Your task to perform on an android device: check data usage Image 0: 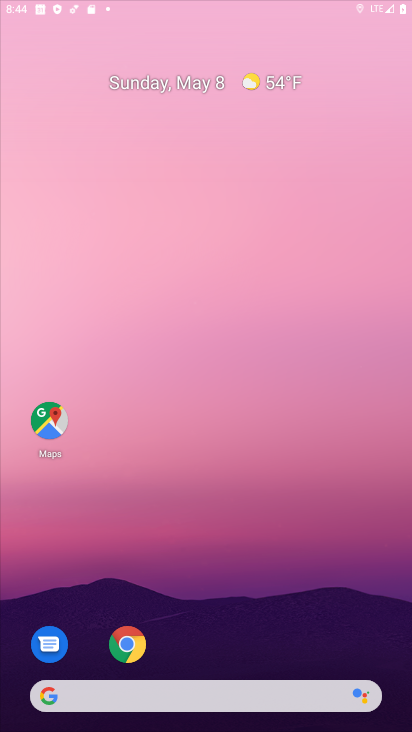
Step 0: click (262, 194)
Your task to perform on an android device: check data usage Image 1: 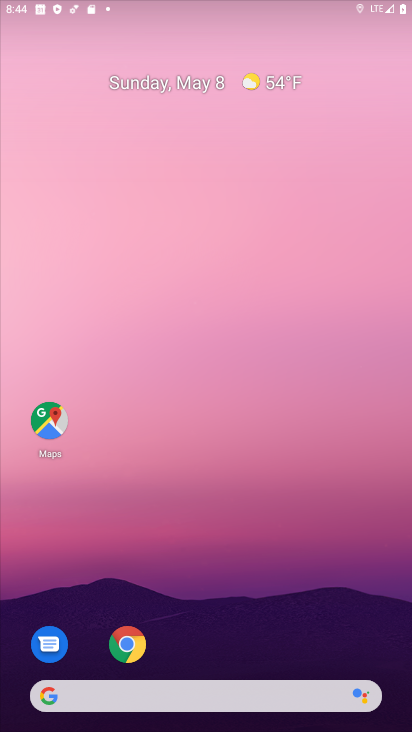
Step 1: drag from (194, 670) to (236, 161)
Your task to perform on an android device: check data usage Image 2: 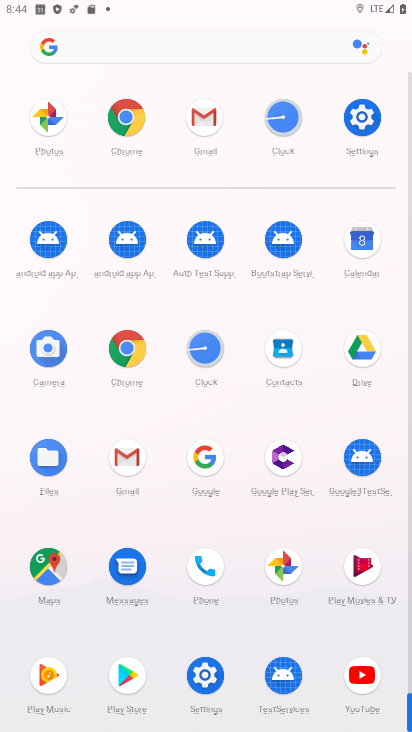
Step 2: click (204, 670)
Your task to perform on an android device: check data usage Image 3: 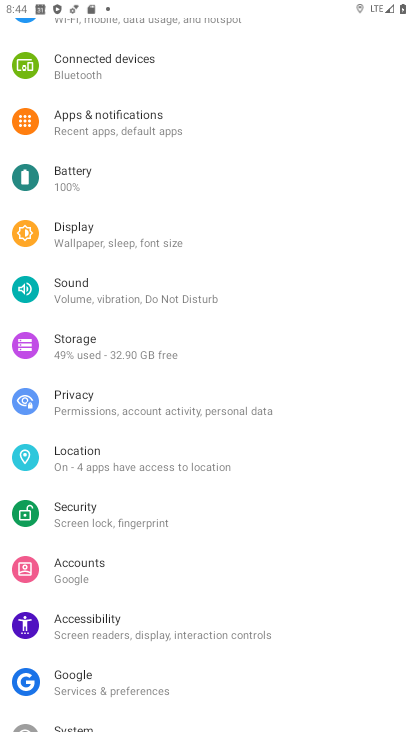
Step 3: drag from (145, 176) to (196, 586)
Your task to perform on an android device: check data usage Image 4: 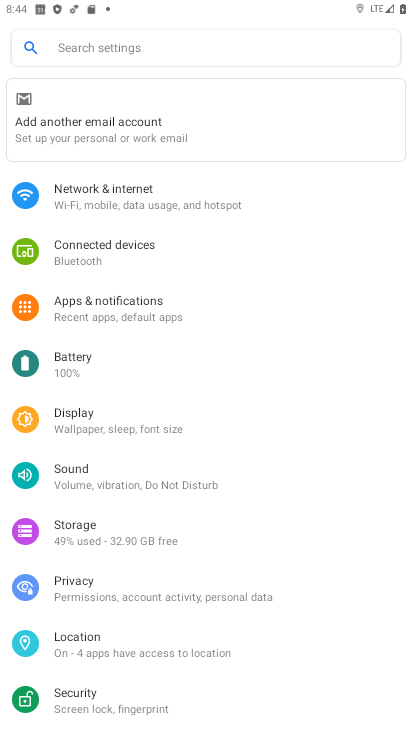
Step 4: click (162, 202)
Your task to perform on an android device: check data usage Image 5: 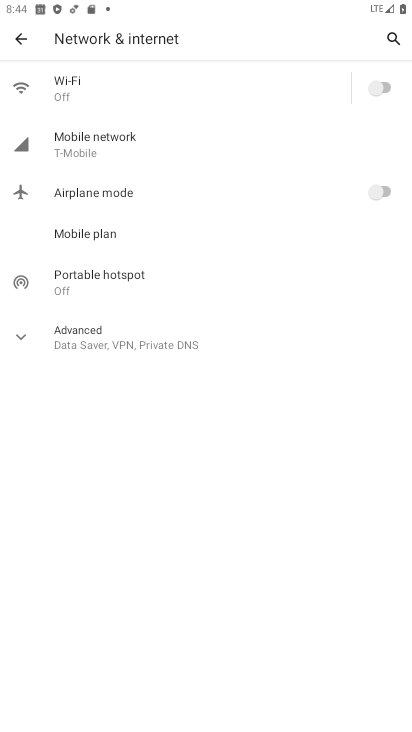
Step 5: click (186, 139)
Your task to perform on an android device: check data usage Image 6: 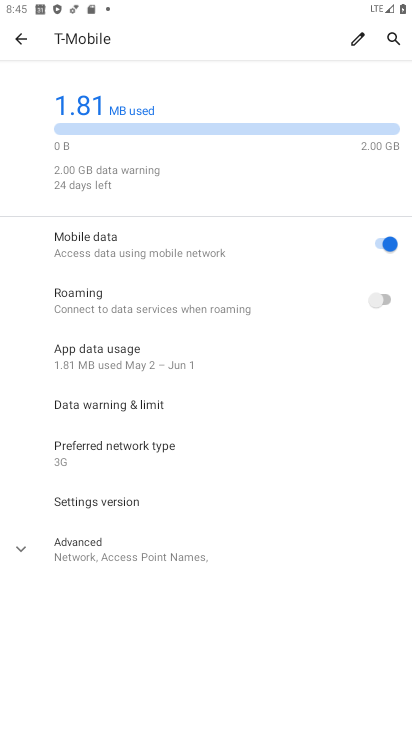
Step 6: click (205, 105)
Your task to perform on an android device: check data usage Image 7: 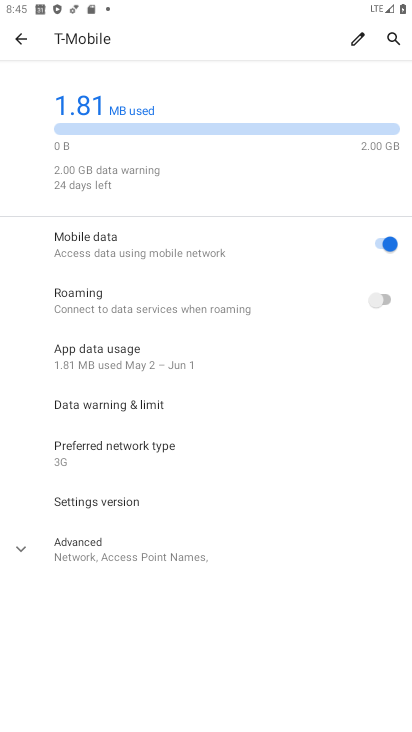
Step 7: task complete